Your task to perform on an android device: Do I have any events today? Image 0: 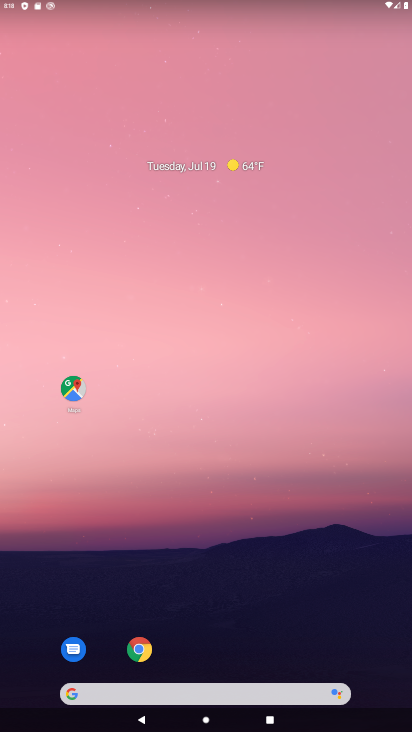
Step 0: drag from (199, 653) to (252, 182)
Your task to perform on an android device: Do I have any events today? Image 1: 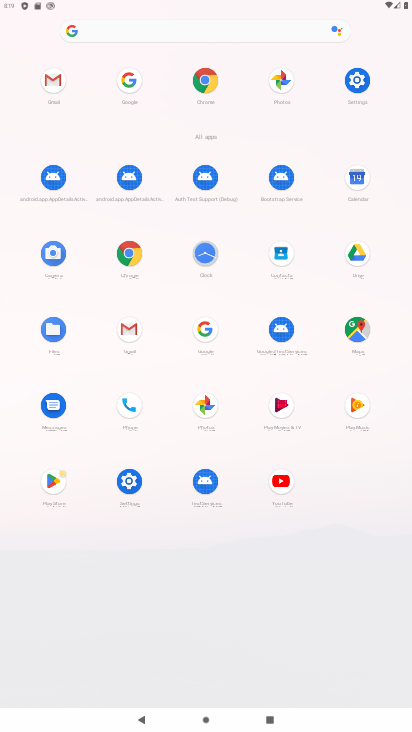
Step 1: click (361, 190)
Your task to perform on an android device: Do I have any events today? Image 2: 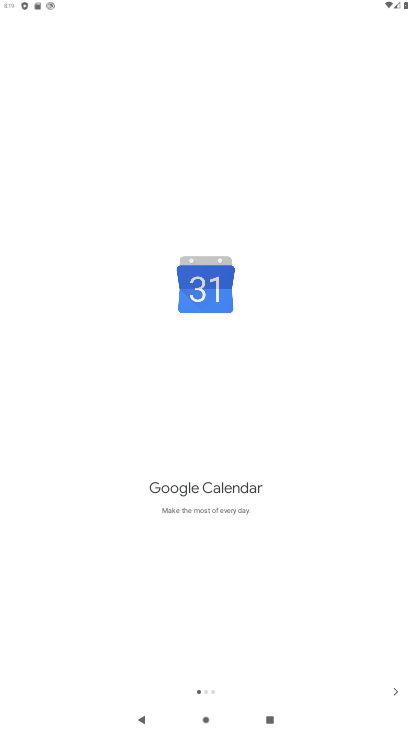
Step 2: click (390, 686)
Your task to perform on an android device: Do I have any events today? Image 3: 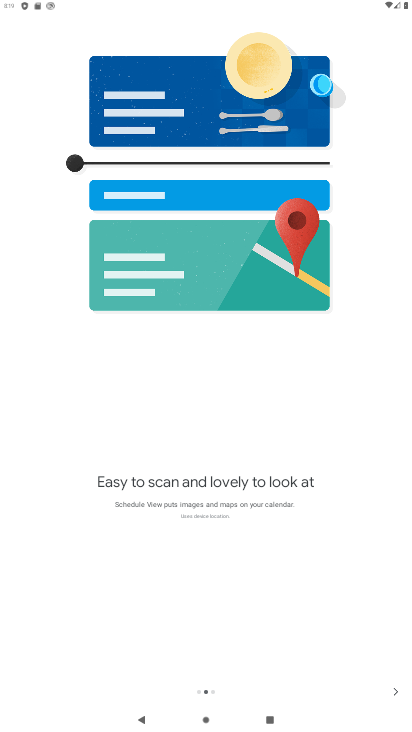
Step 3: click (390, 685)
Your task to perform on an android device: Do I have any events today? Image 4: 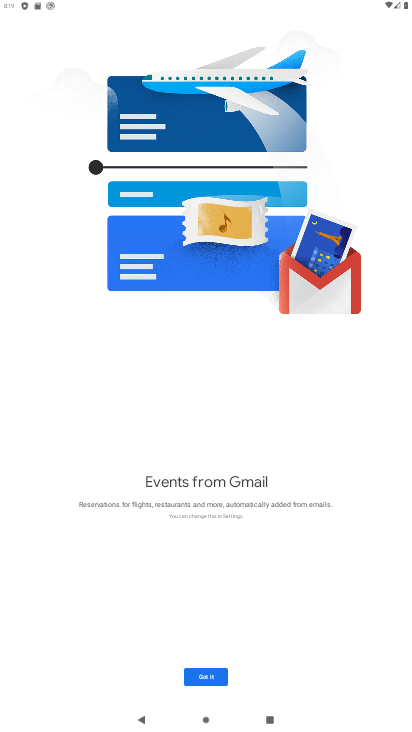
Step 4: click (217, 681)
Your task to perform on an android device: Do I have any events today? Image 5: 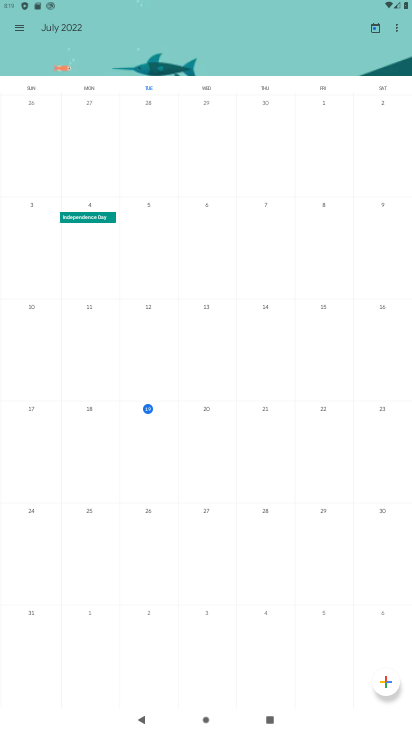
Step 5: click (68, 30)
Your task to perform on an android device: Do I have any events today? Image 6: 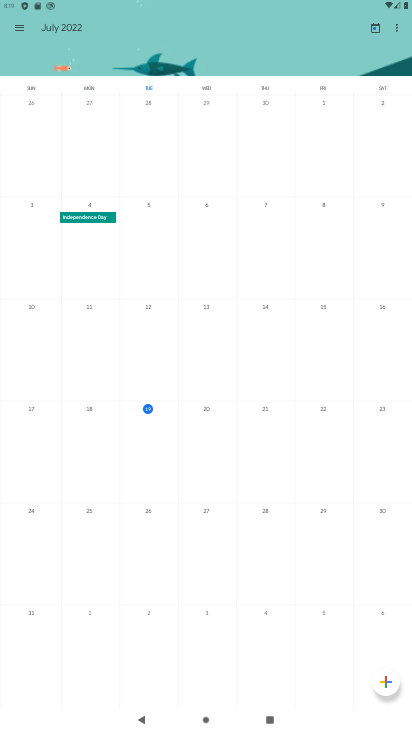
Step 6: click (66, 31)
Your task to perform on an android device: Do I have any events today? Image 7: 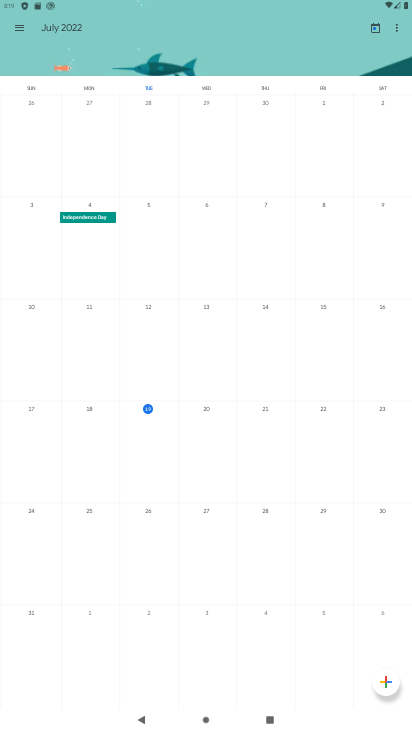
Step 7: click (20, 30)
Your task to perform on an android device: Do I have any events today? Image 8: 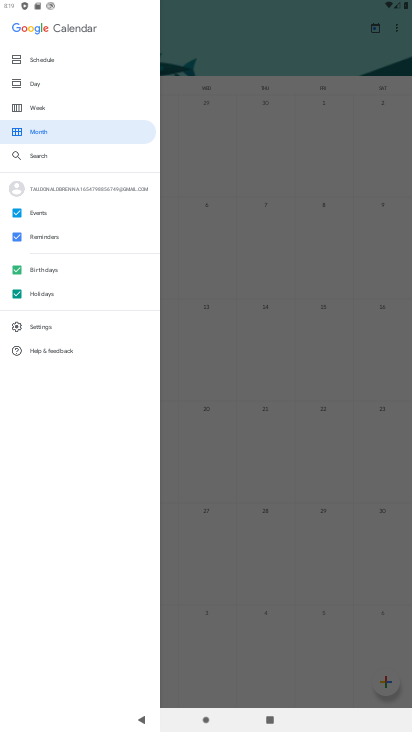
Step 8: click (51, 64)
Your task to perform on an android device: Do I have any events today? Image 9: 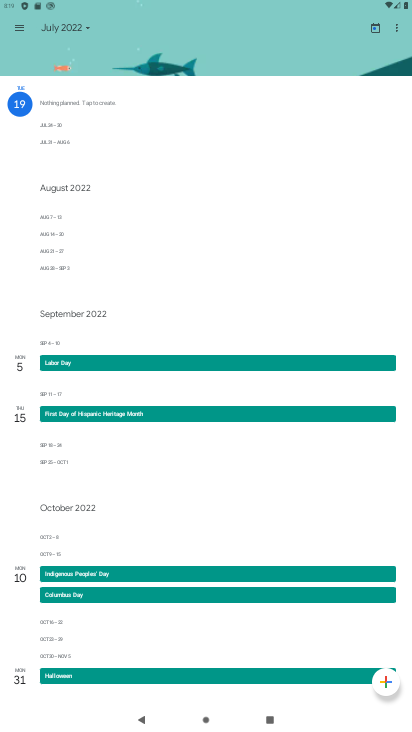
Step 9: task complete